Your task to perform on an android device: Find coffee shops on Maps Image 0: 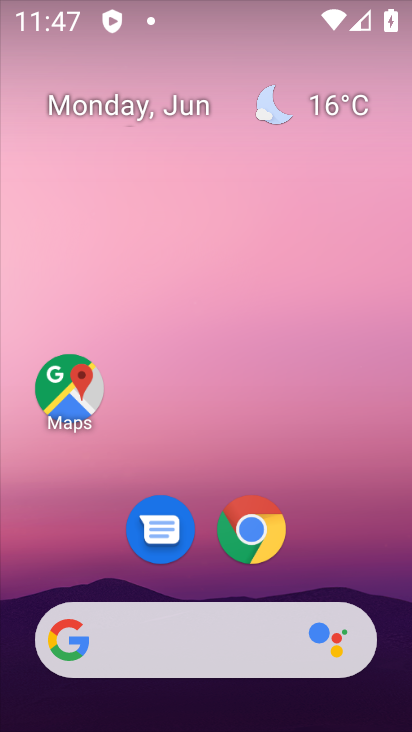
Step 0: click (78, 379)
Your task to perform on an android device: Find coffee shops on Maps Image 1: 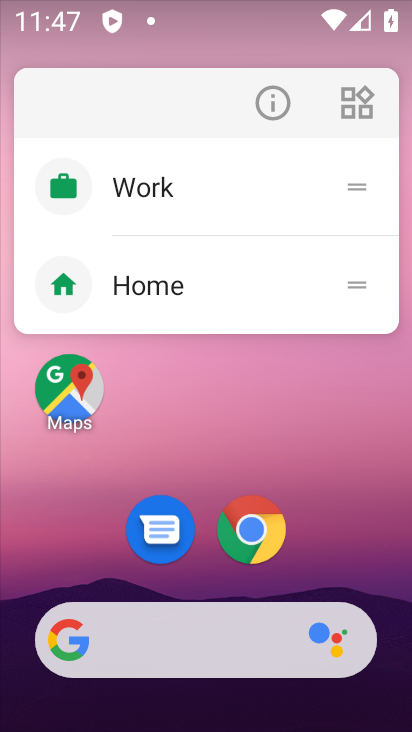
Step 1: click (81, 403)
Your task to perform on an android device: Find coffee shops on Maps Image 2: 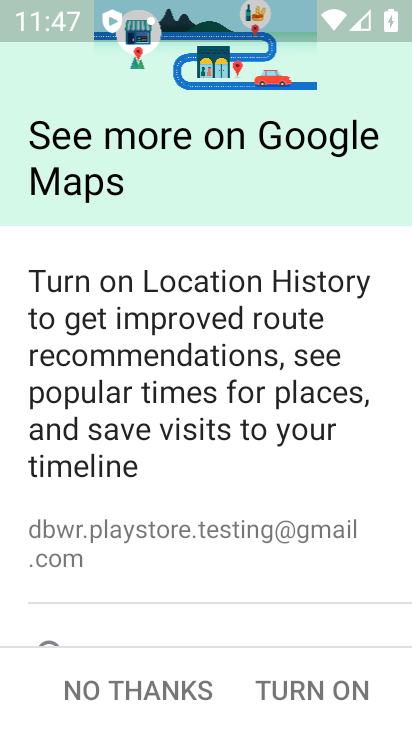
Step 2: click (192, 691)
Your task to perform on an android device: Find coffee shops on Maps Image 3: 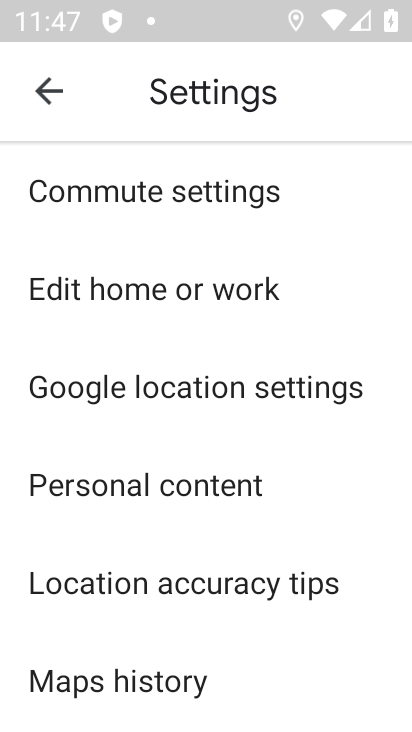
Step 3: click (66, 107)
Your task to perform on an android device: Find coffee shops on Maps Image 4: 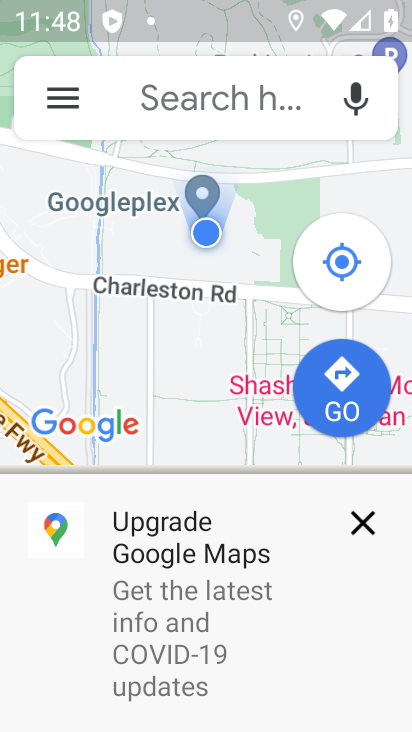
Step 4: click (188, 92)
Your task to perform on an android device: Find coffee shops on Maps Image 5: 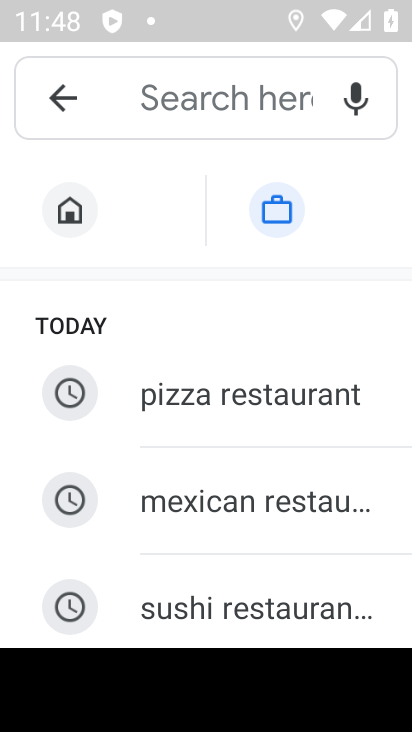
Step 5: type "coffee shops"
Your task to perform on an android device: Find coffee shops on Maps Image 6: 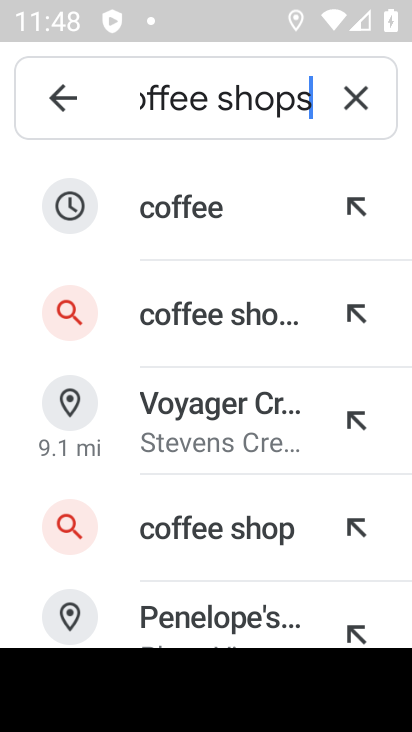
Step 6: click (207, 354)
Your task to perform on an android device: Find coffee shops on Maps Image 7: 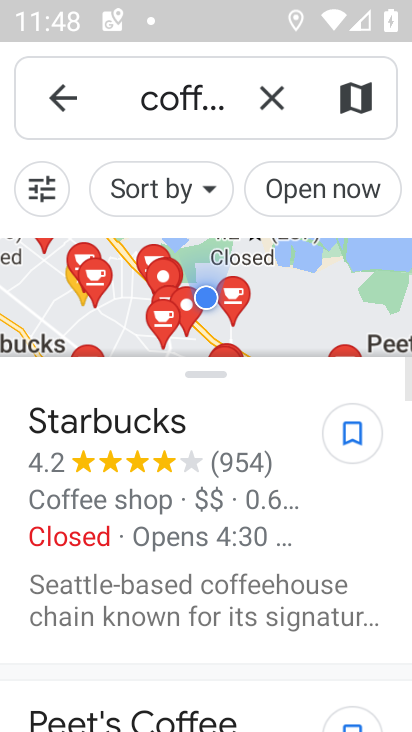
Step 7: task complete